Your task to perform on an android device: Open Wikipedia Image 0: 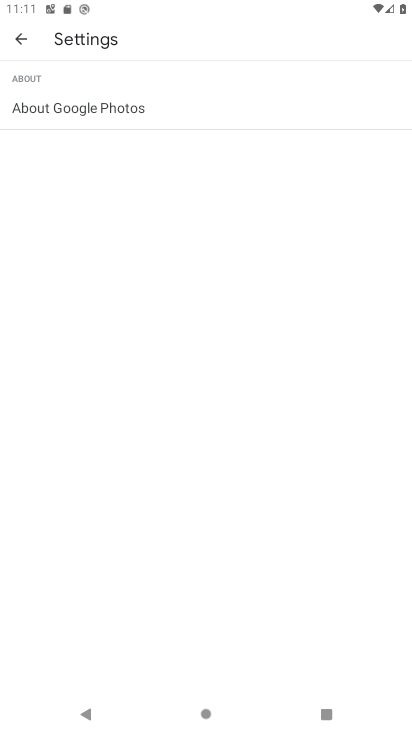
Step 0: press home button
Your task to perform on an android device: Open Wikipedia Image 1: 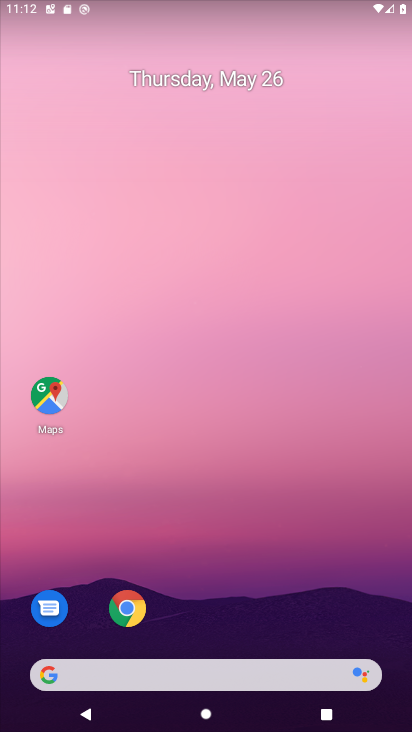
Step 1: click (132, 608)
Your task to perform on an android device: Open Wikipedia Image 2: 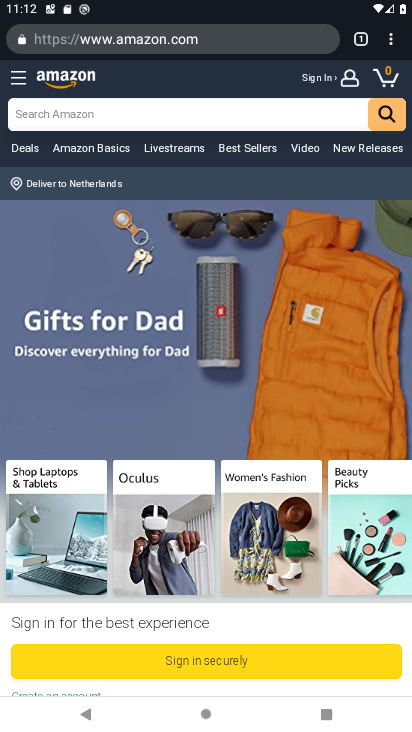
Step 2: click (203, 38)
Your task to perform on an android device: Open Wikipedia Image 3: 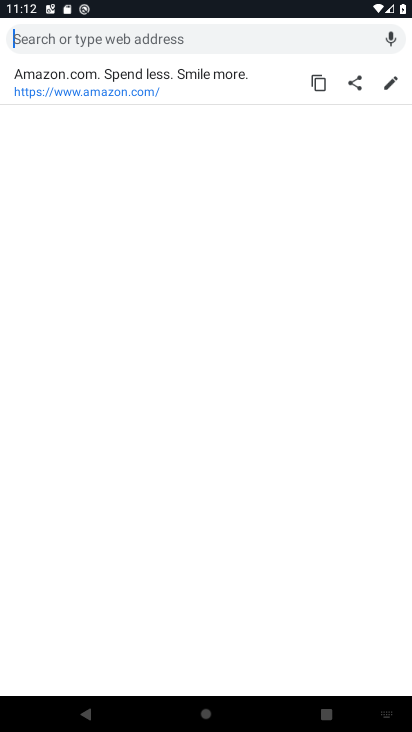
Step 3: type "Wikipedia"
Your task to perform on an android device: Open Wikipedia Image 4: 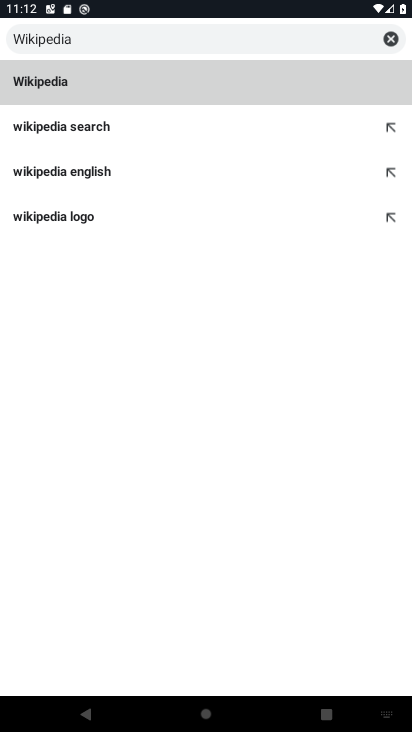
Step 4: click (42, 85)
Your task to perform on an android device: Open Wikipedia Image 5: 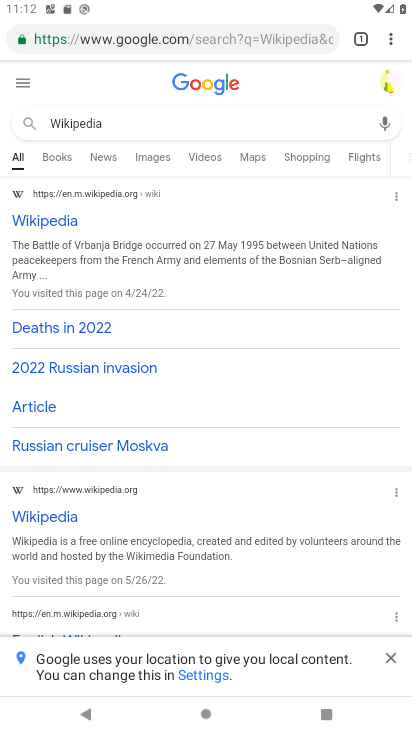
Step 5: task complete